Your task to perform on an android device: Open sound settings Image 0: 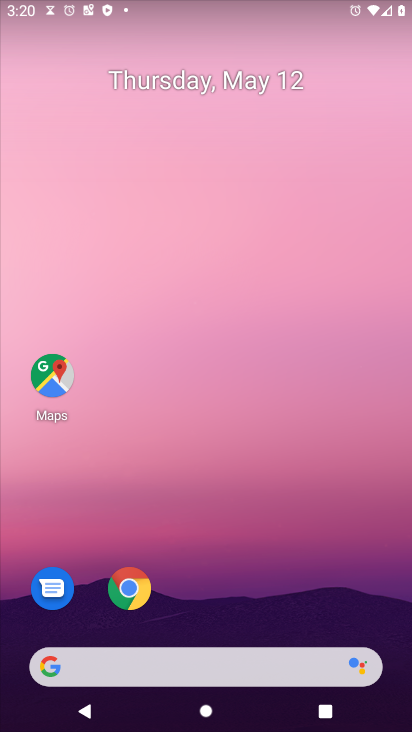
Step 0: drag from (273, 572) to (208, 17)
Your task to perform on an android device: Open sound settings Image 1: 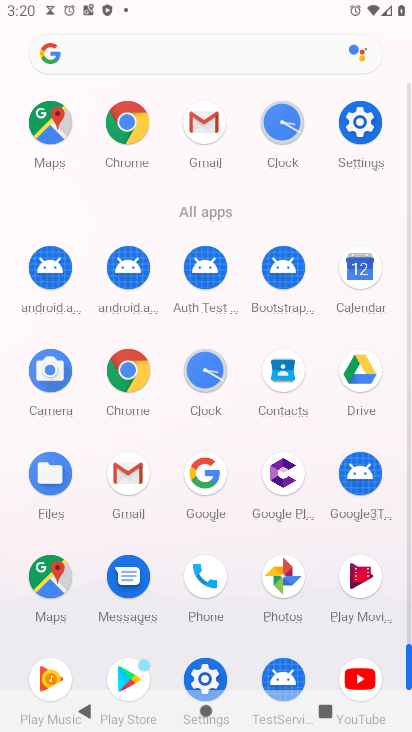
Step 1: drag from (5, 608) to (18, 300)
Your task to perform on an android device: Open sound settings Image 2: 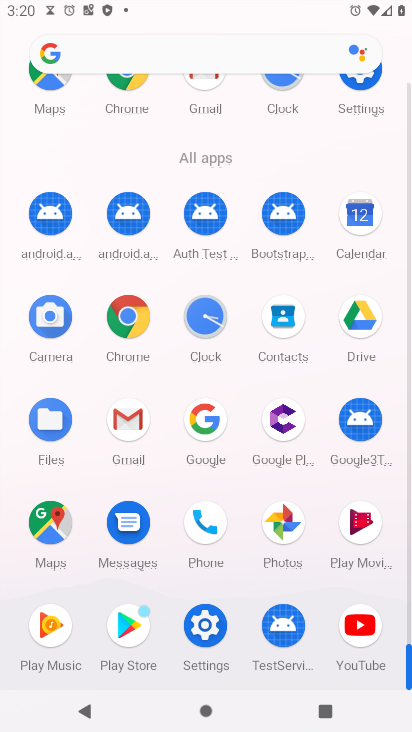
Step 2: click (203, 623)
Your task to perform on an android device: Open sound settings Image 3: 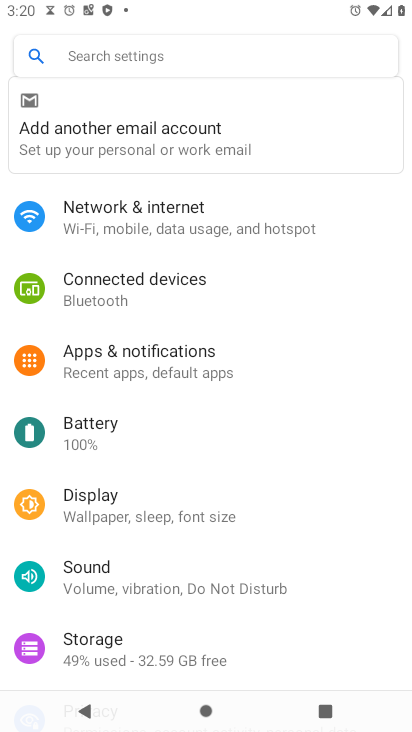
Step 3: click (151, 563)
Your task to perform on an android device: Open sound settings Image 4: 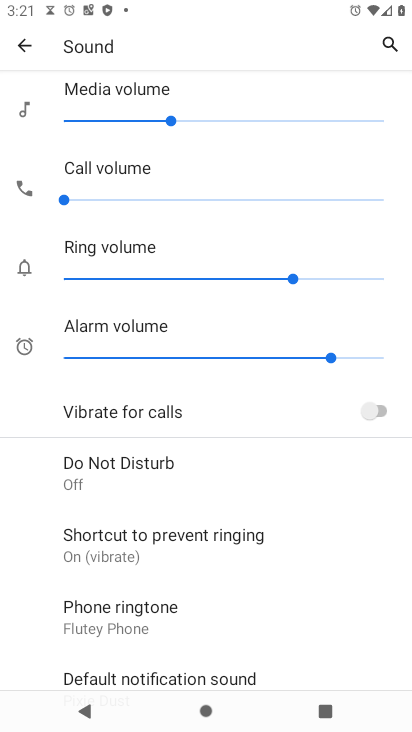
Step 4: task complete